Your task to perform on an android device: Go to Amazon Image 0: 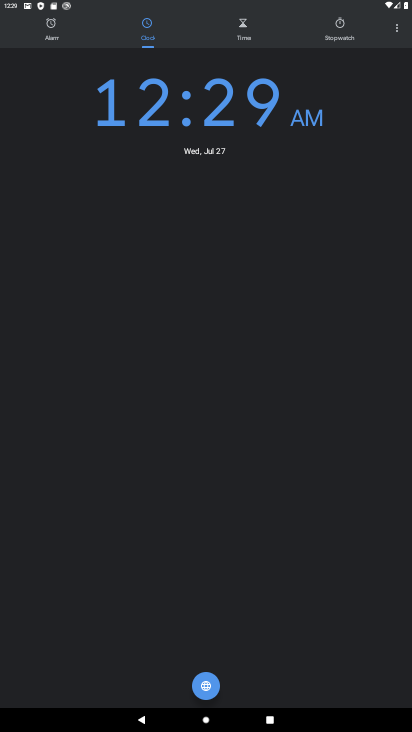
Step 0: press home button
Your task to perform on an android device: Go to Amazon Image 1: 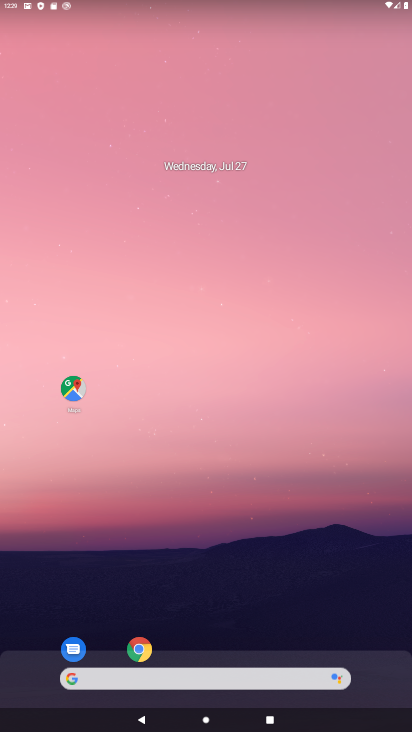
Step 1: click (139, 644)
Your task to perform on an android device: Go to Amazon Image 2: 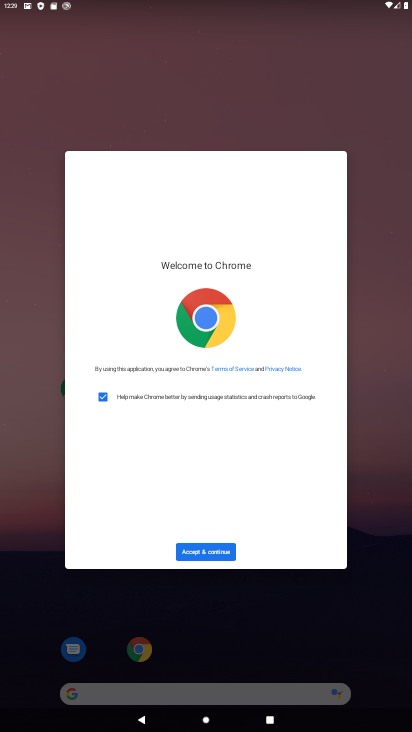
Step 2: click (200, 554)
Your task to perform on an android device: Go to Amazon Image 3: 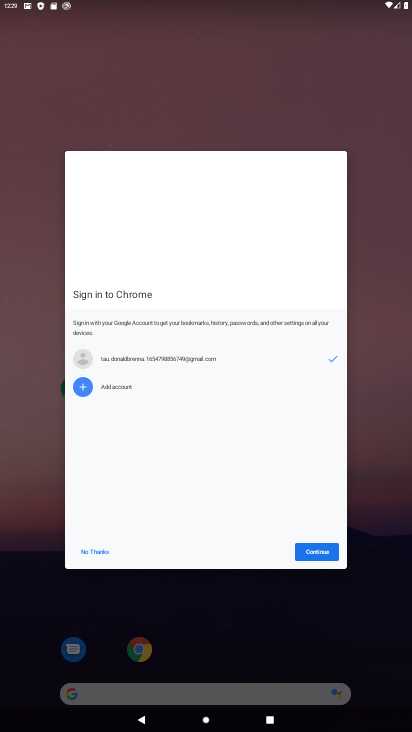
Step 3: click (320, 550)
Your task to perform on an android device: Go to Amazon Image 4: 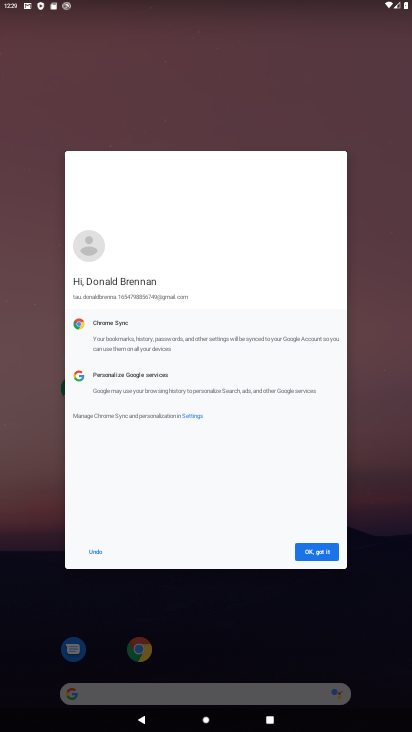
Step 4: click (309, 551)
Your task to perform on an android device: Go to Amazon Image 5: 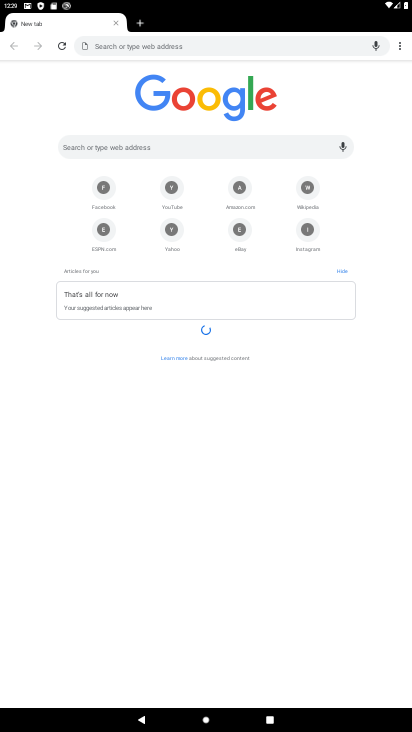
Step 5: click (234, 187)
Your task to perform on an android device: Go to Amazon Image 6: 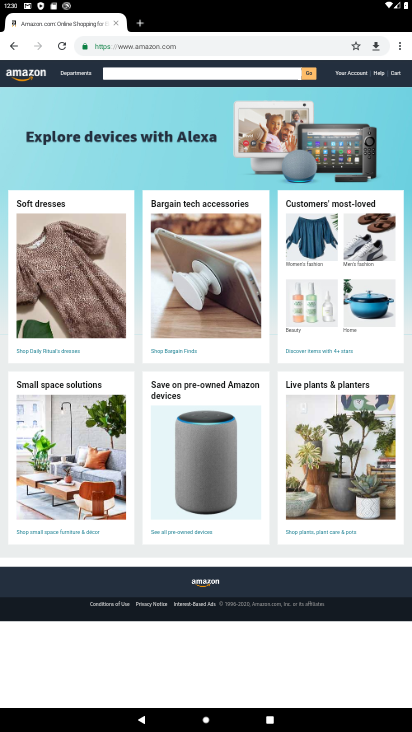
Step 6: task complete